Your task to perform on an android device: When is my next meeting? Image 0: 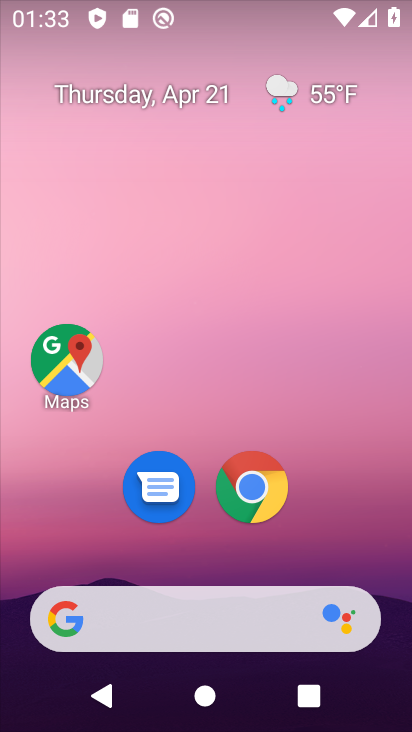
Step 0: drag from (328, 330) to (334, 66)
Your task to perform on an android device: When is my next meeting? Image 1: 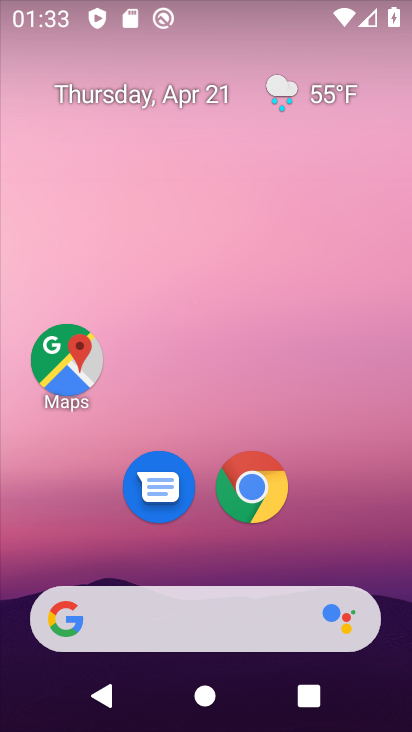
Step 1: drag from (299, 503) to (333, 34)
Your task to perform on an android device: When is my next meeting? Image 2: 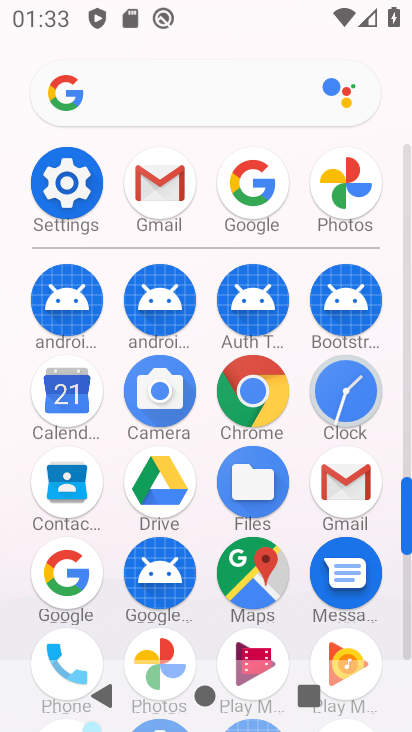
Step 2: click (65, 406)
Your task to perform on an android device: When is my next meeting? Image 3: 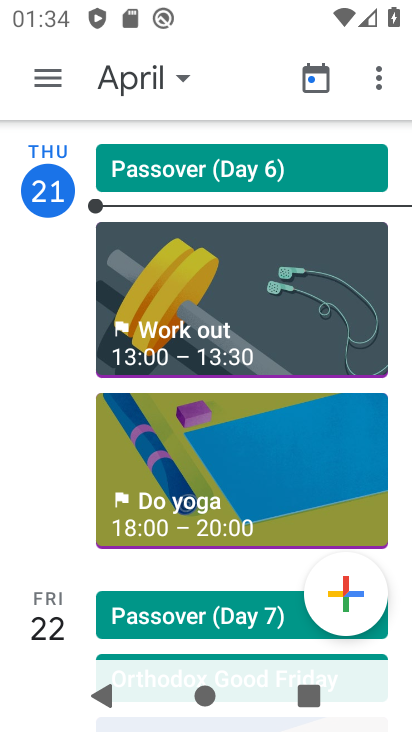
Step 3: click (59, 79)
Your task to perform on an android device: When is my next meeting? Image 4: 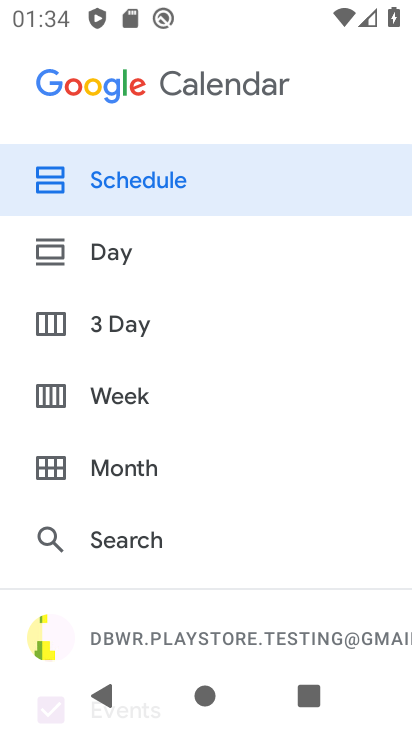
Step 4: drag from (134, 504) to (206, 218)
Your task to perform on an android device: When is my next meeting? Image 5: 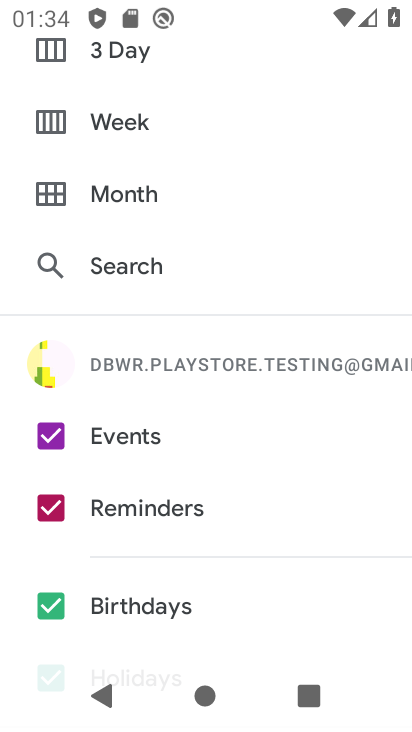
Step 5: drag from (205, 462) to (264, 179)
Your task to perform on an android device: When is my next meeting? Image 6: 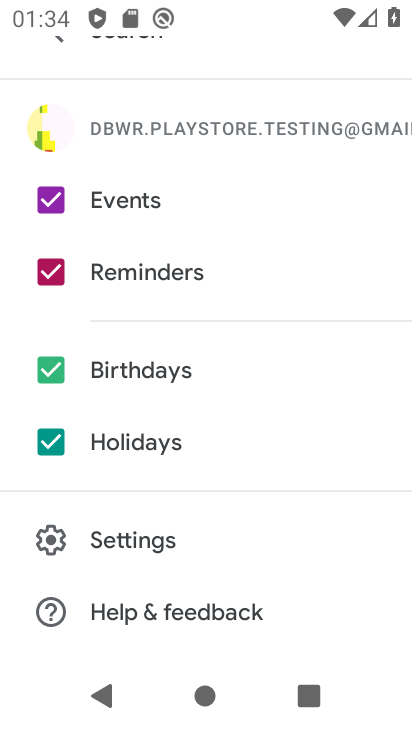
Step 6: click (123, 444)
Your task to perform on an android device: When is my next meeting? Image 7: 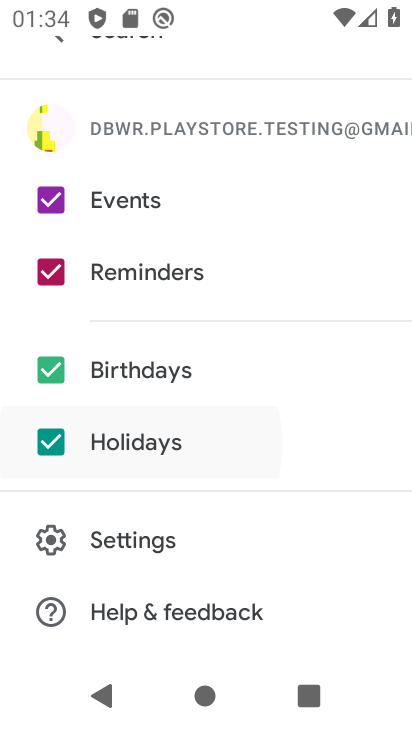
Step 7: click (128, 357)
Your task to perform on an android device: When is my next meeting? Image 8: 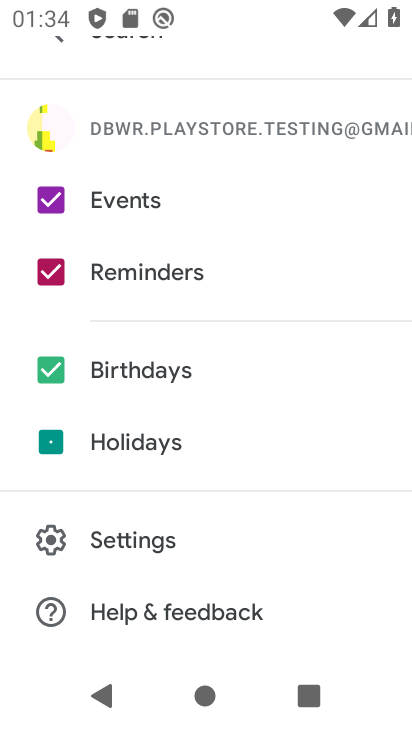
Step 8: click (134, 258)
Your task to perform on an android device: When is my next meeting? Image 9: 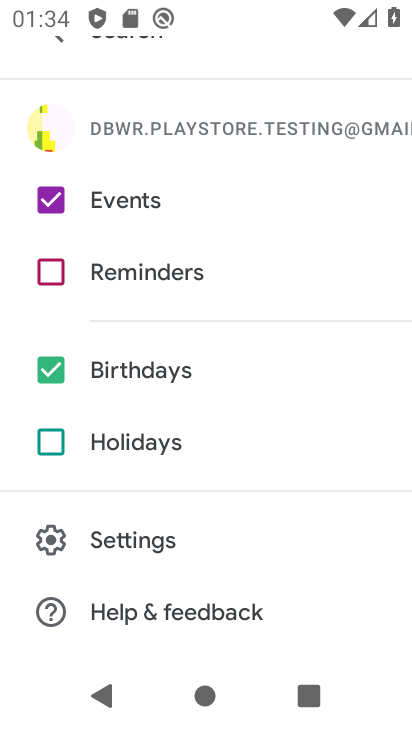
Step 9: drag from (279, 232) to (219, 575)
Your task to perform on an android device: When is my next meeting? Image 10: 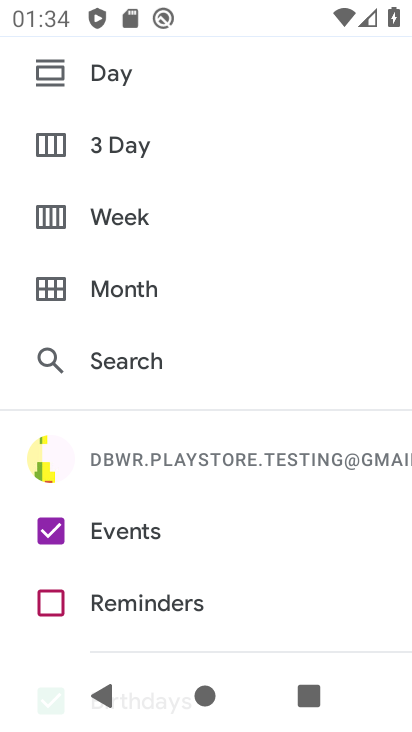
Step 10: drag from (187, 120) to (160, 436)
Your task to perform on an android device: When is my next meeting? Image 11: 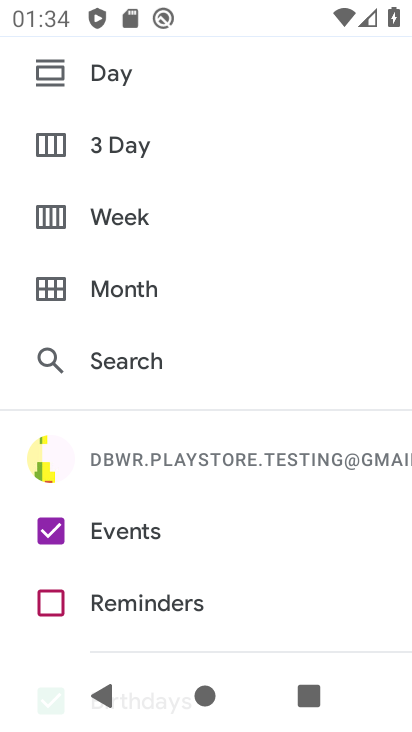
Step 11: drag from (164, 143) to (165, 474)
Your task to perform on an android device: When is my next meeting? Image 12: 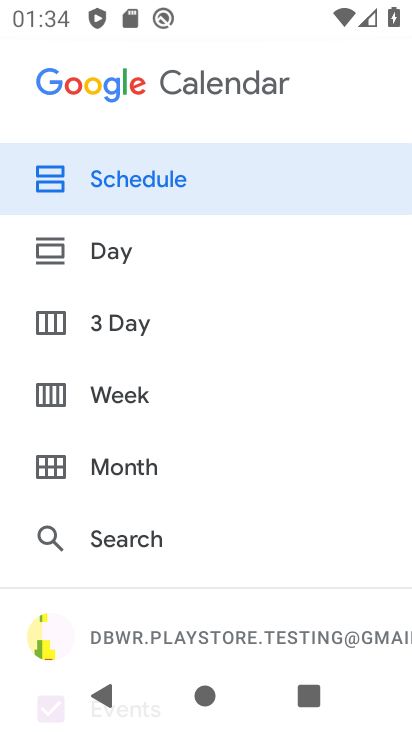
Step 12: drag from (237, 139) to (232, 409)
Your task to perform on an android device: When is my next meeting? Image 13: 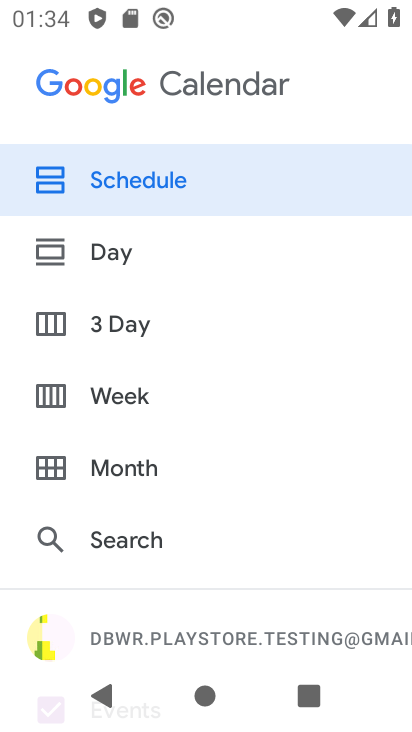
Step 13: press back button
Your task to perform on an android device: When is my next meeting? Image 14: 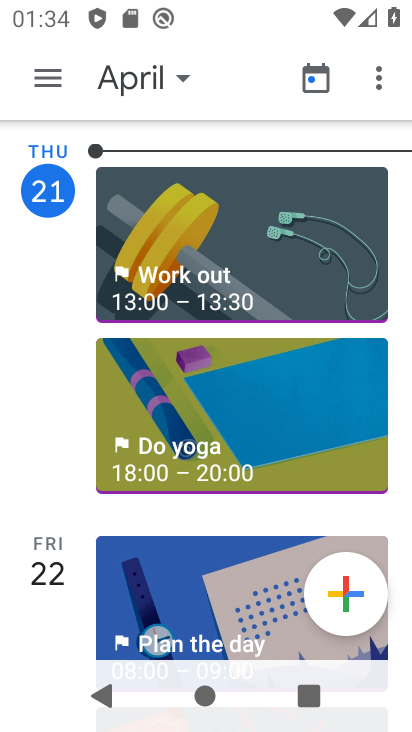
Step 14: click (125, 83)
Your task to perform on an android device: When is my next meeting? Image 15: 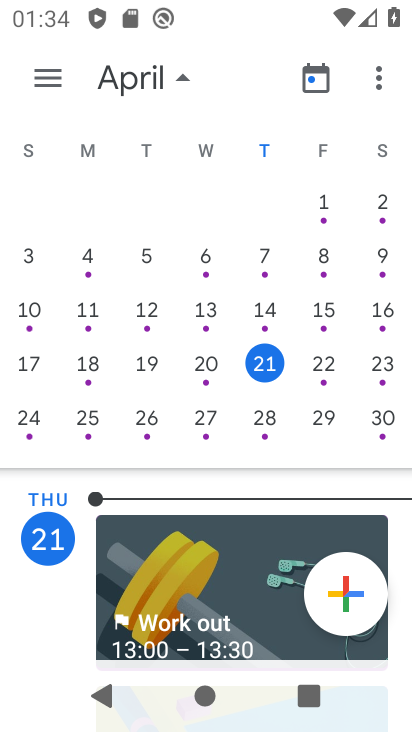
Step 15: click (314, 369)
Your task to perform on an android device: When is my next meeting? Image 16: 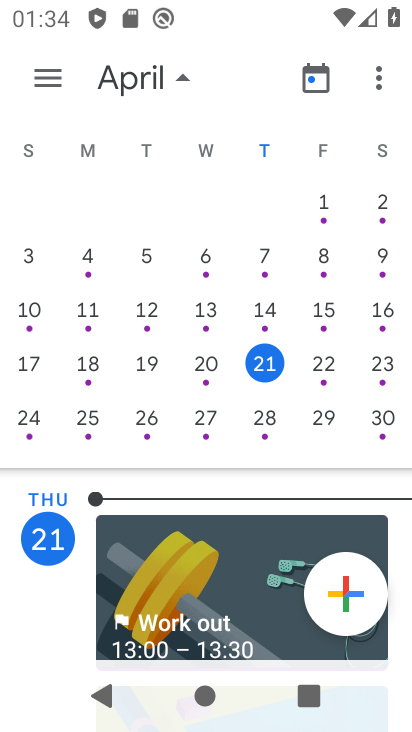
Step 16: click (326, 369)
Your task to perform on an android device: When is my next meeting? Image 17: 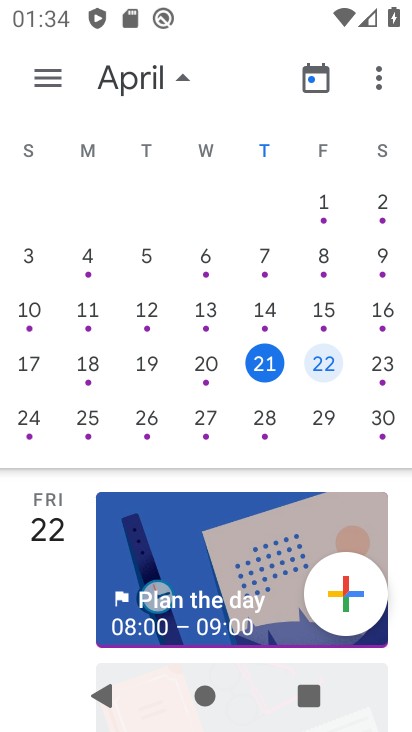
Step 17: task complete